Your task to perform on an android device: turn on improve location accuracy Image 0: 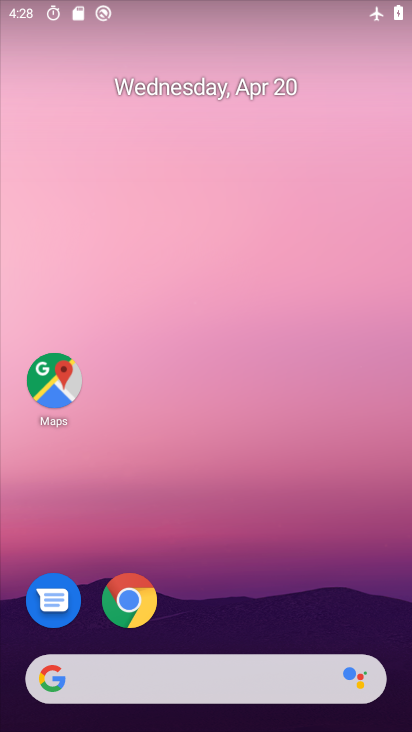
Step 0: drag from (248, 620) to (259, 231)
Your task to perform on an android device: turn on improve location accuracy Image 1: 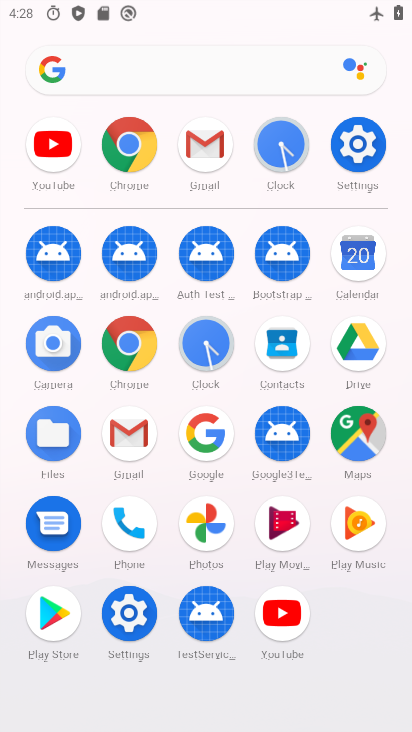
Step 1: click (354, 171)
Your task to perform on an android device: turn on improve location accuracy Image 2: 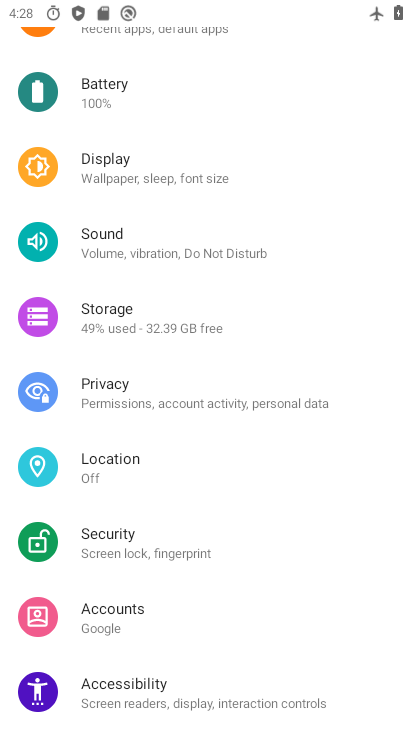
Step 2: click (125, 460)
Your task to perform on an android device: turn on improve location accuracy Image 3: 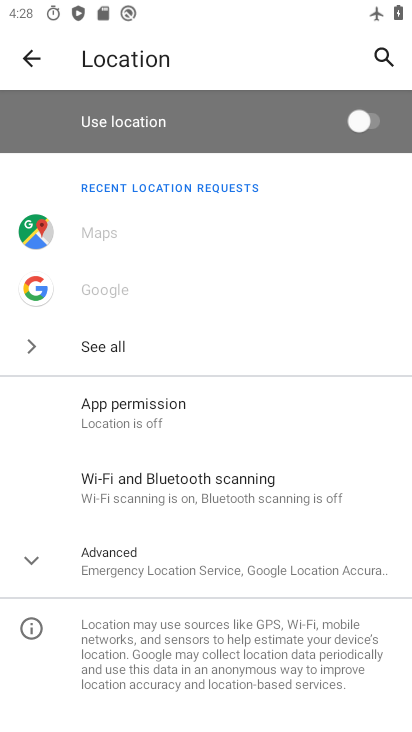
Step 3: click (139, 572)
Your task to perform on an android device: turn on improve location accuracy Image 4: 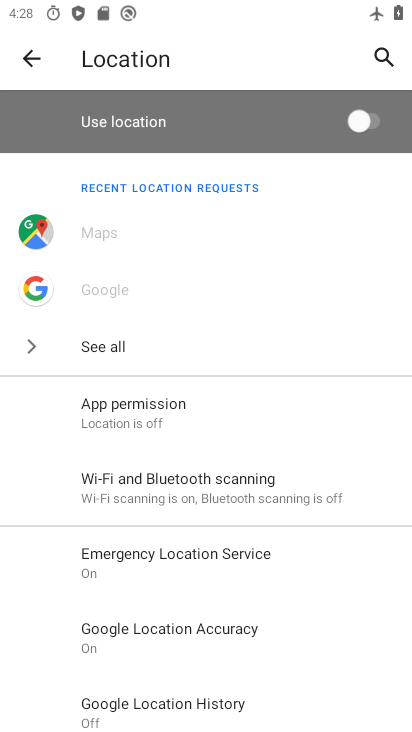
Step 4: drag from (258, 661) to (304, 408)
Your task to perform on an android device: turn on improve location accuracy Image 5: 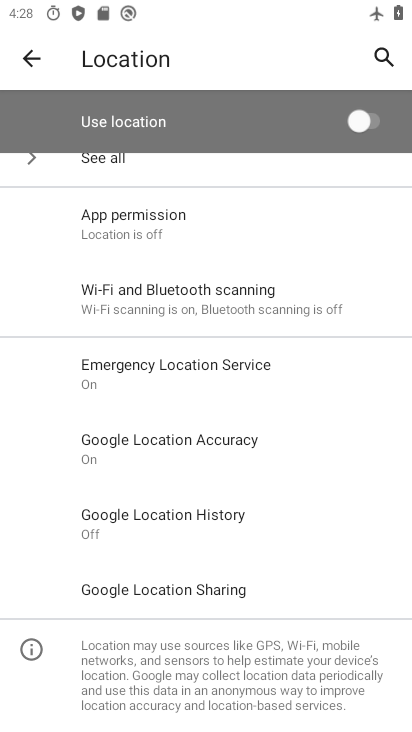
Step 5: click (204, 443)
Your task to perform on an android device: turn on improve location accuracy Image 6: 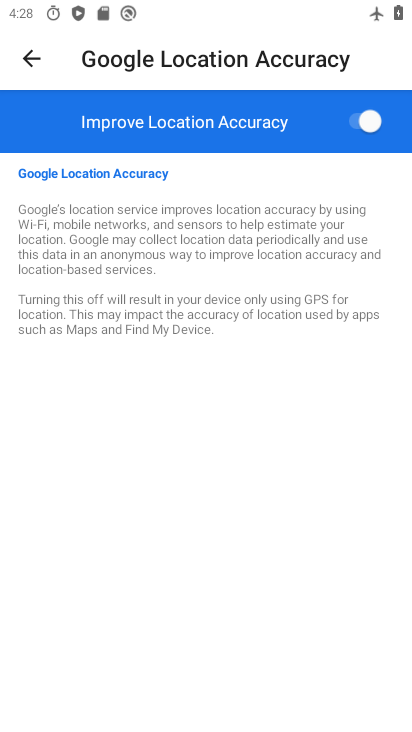
Step 6: task complete